Your task to perform on an android device: turn off location Image 0: 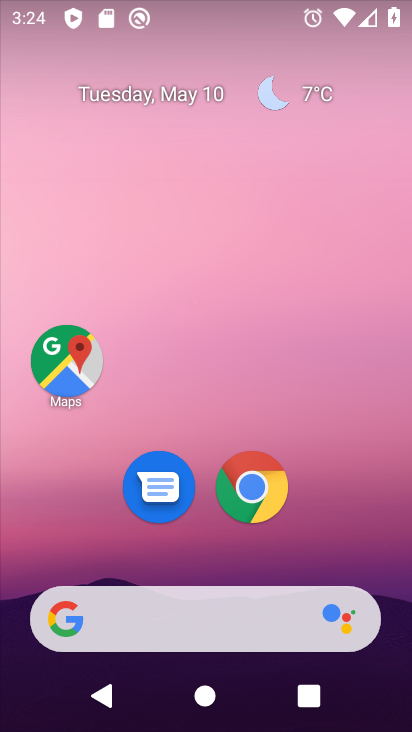
Step 0: drag from (337, 540) to (298, 87)
Your task to perform on an android device: turn off location Image 1: 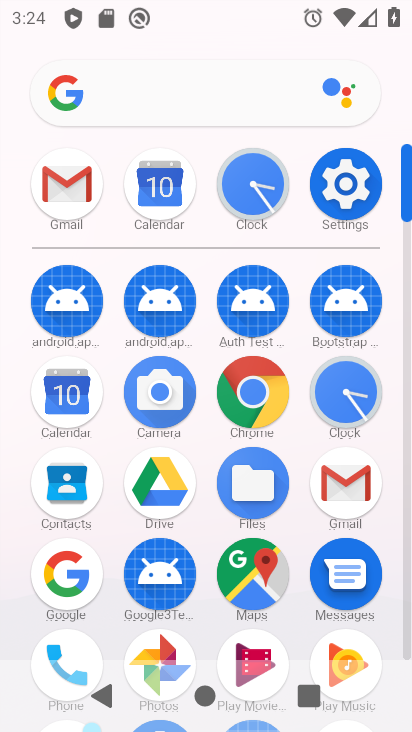
Step 1: click (330, 177)
Your task to perform on an android device: turn off location Image 2: 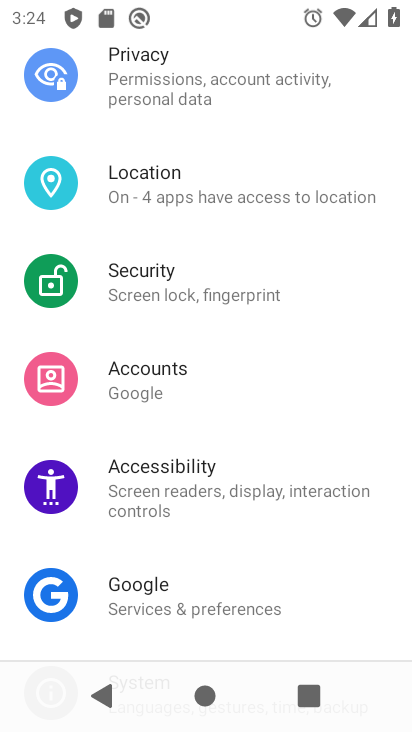
Step 2: drag from (214, 540) to (176, 575)
Your task to perform on an android device: turn off location Image 3: 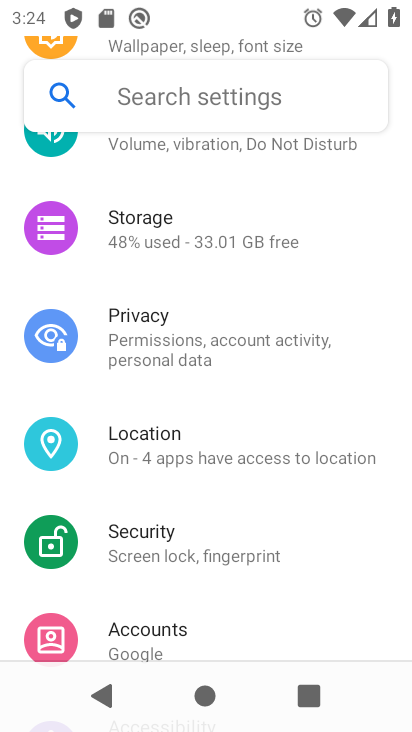
Step 3: click (185, 444)
Your task to perform on an android device: turn off location Image 4: 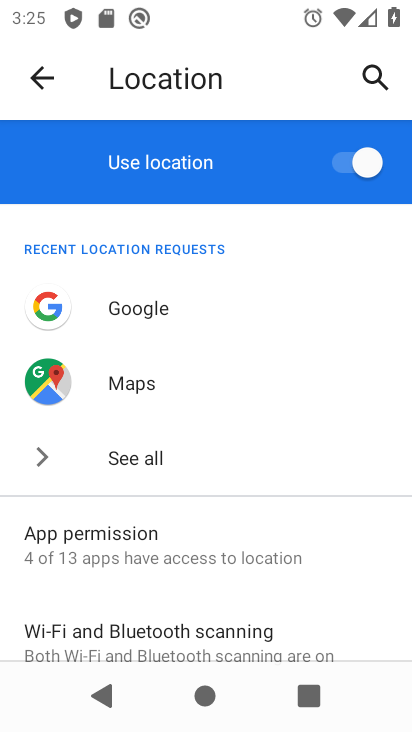
Step 4: click (356, 175)
Your task to perform on an android device: turn off location Image 5: 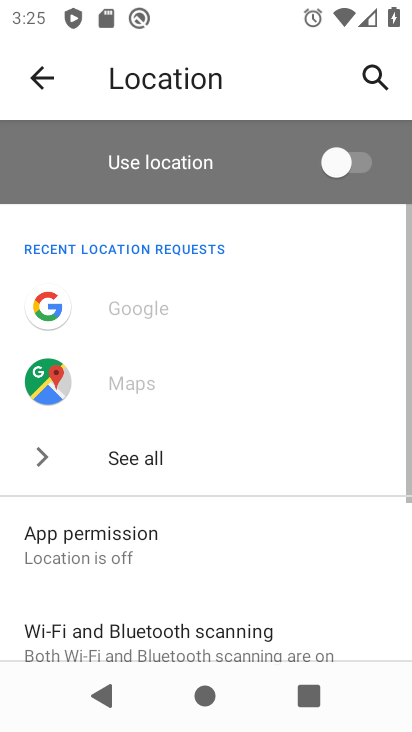
Step 5: task complete